Your task to perform on an android device: Open Google Maps Image 0: 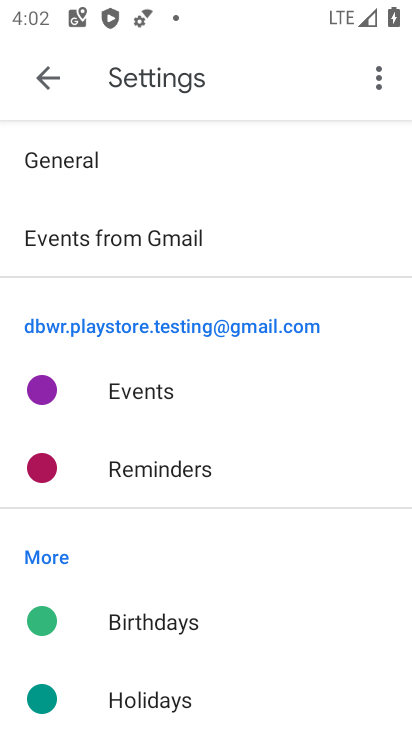
Step 0: press home button
Your task to perform on an android device: Open Google Maps Image 1: 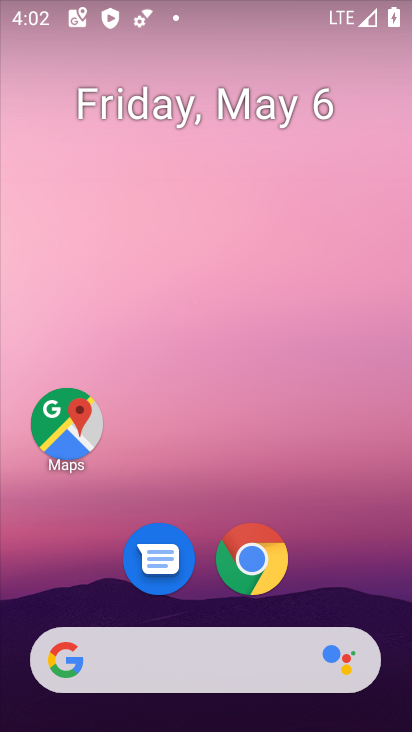
Step 1: click (84, 427)
Your task to perform on an android device: Open Google Maps Image 2: 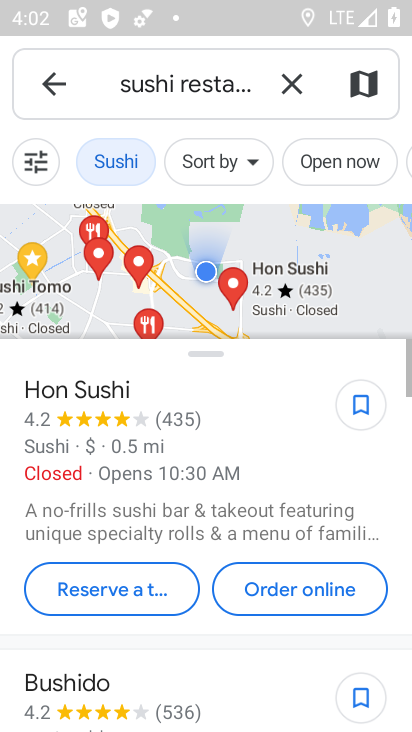
Step 2: click (290, 85)
Your task to perform on an android device: Open Google Maps Image 3: 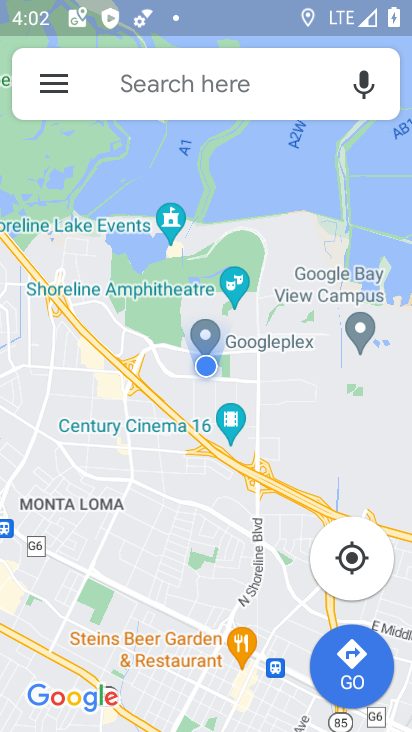
Step 3: task complete